Your task to perform on an android device: open app "Etsy: Buy & Sell Unique Items" (install if not already installed) Image 0: 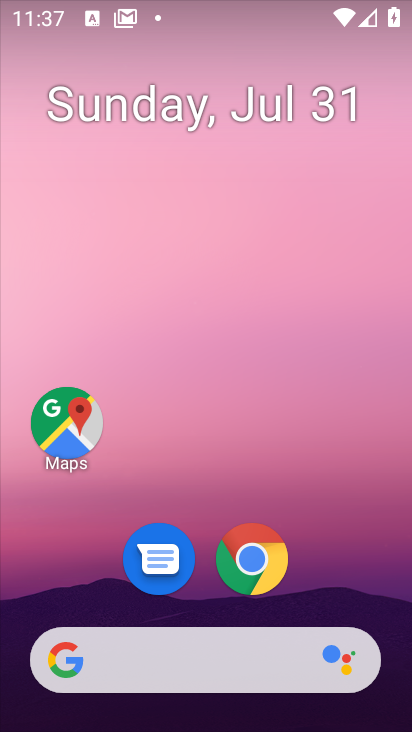
Step 0: drag from (75, 449) to (234, 14)
Your task to perform on an android device: open app "Etsy: Buy & Sell Unique Items" (install if not already installed) Image 1: 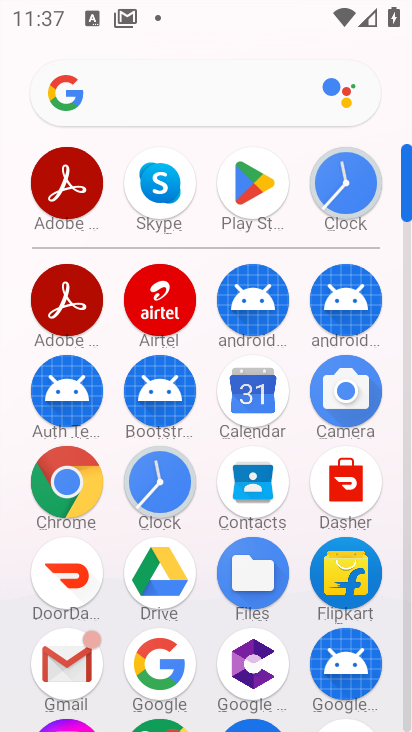
Step 1: click (259, 186)
Your task to perform on an android device: open app "Etsy: Buy & Sell Unique Items" (install if not already installed) Image 2: 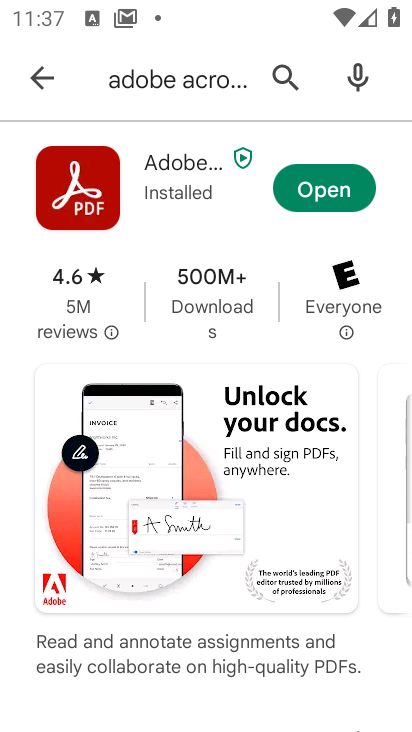
Step 2: click (284, 77)
Your task to perform on an android device: open app "Etsy: Buy & Sell Unique Items" (install if not already installed) Image 3: 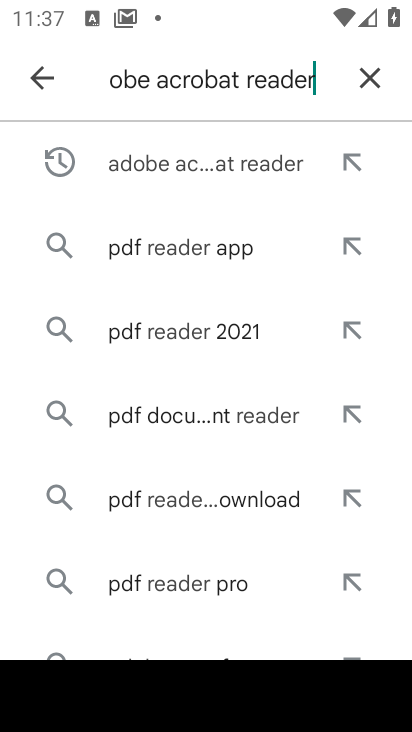
Step 3: click (363, 75)
Your task to perform on an android device: open app "Etsy: Buy & Sell Unique Items" (install if not already installed) Image 4: 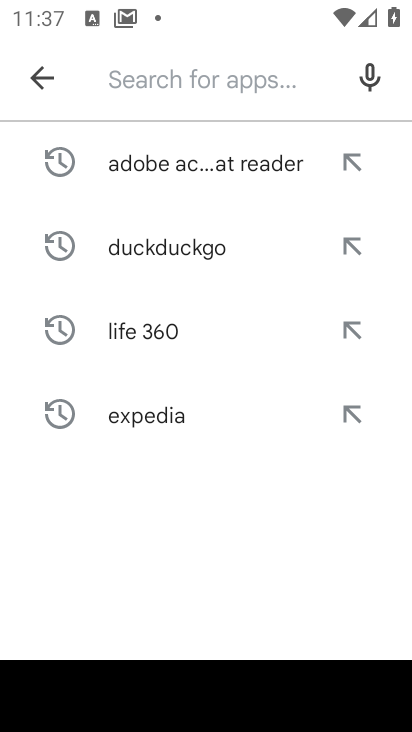
Step 4: click (152, 78)
Your task to perform on an android device: open app "Etsy: Buy & Sell Unique Items" (install if not already installed) Image 5: 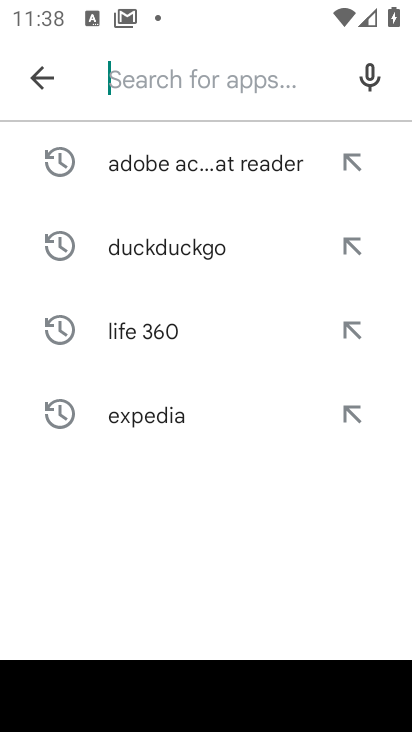
Step 5: type "etsy"
Your task to perform on an android device: open app "Etsy: Buy & Sell Unique Items" (install if not already installed) Image 6: 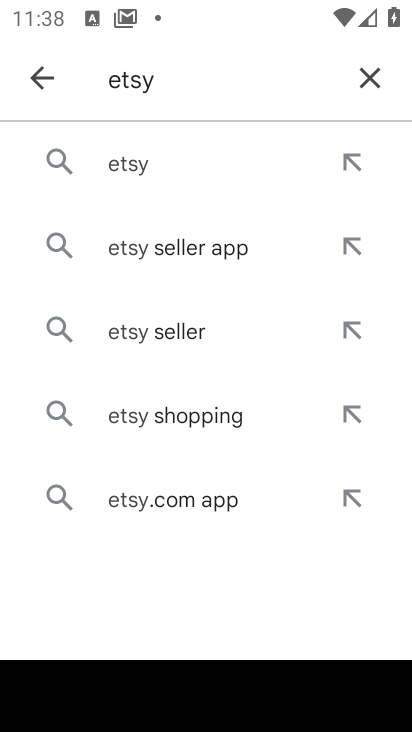
Step 6: click (143, 158)
Your task to perform on an android device: open app "Etsy: Buy & Sell Unique Items" (install if not already installed) Image 7: 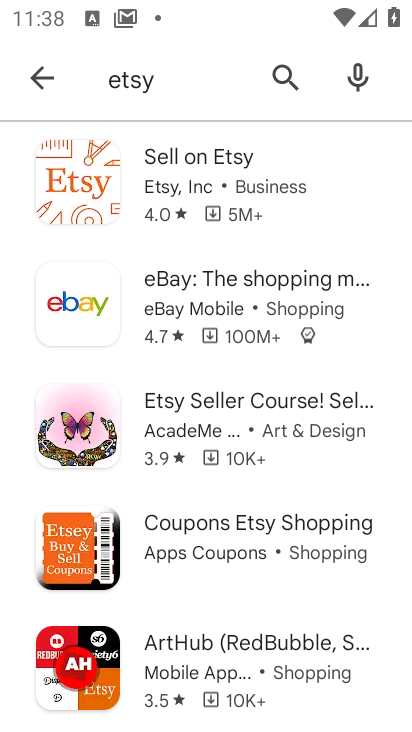
Step 7: task complete